Your task to perform on an android device: Show me recent news Image 0: 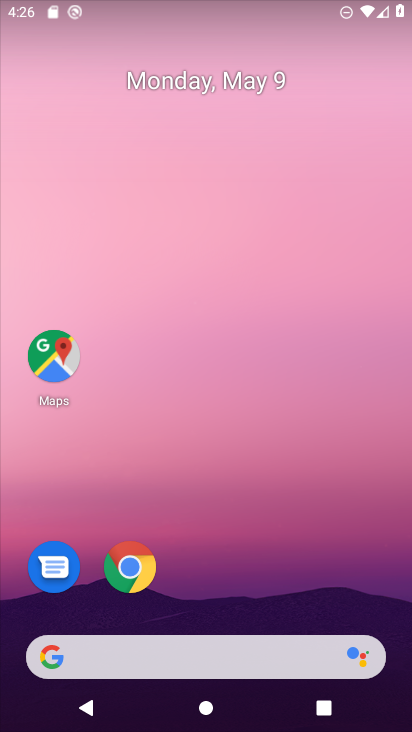
Step 0: click (195, 652)
Your task to perform on an android device: Show me recent news Image 1: 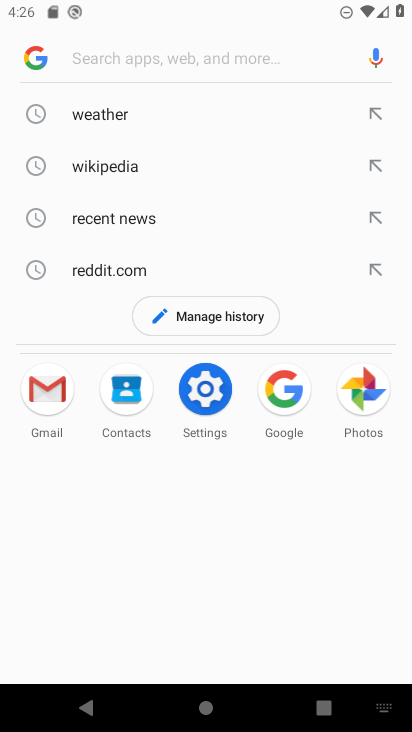
Step 1: click (140, 212)
Your task to perform on an android device: Show me recent news Image 2: 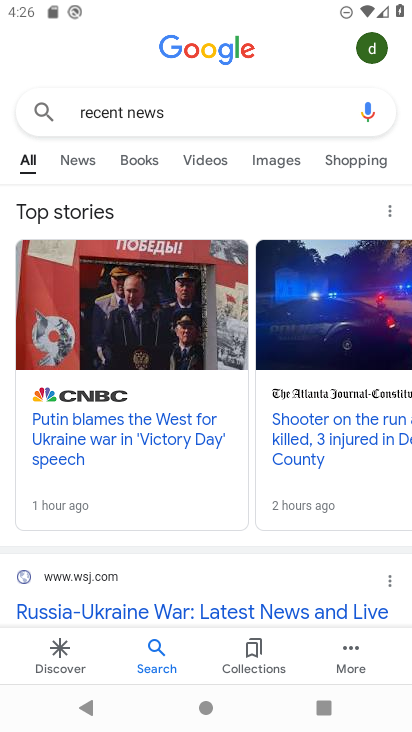
Step 2: click (70, 159)
Your task to perform on an android device: Show me recent news Image 3: 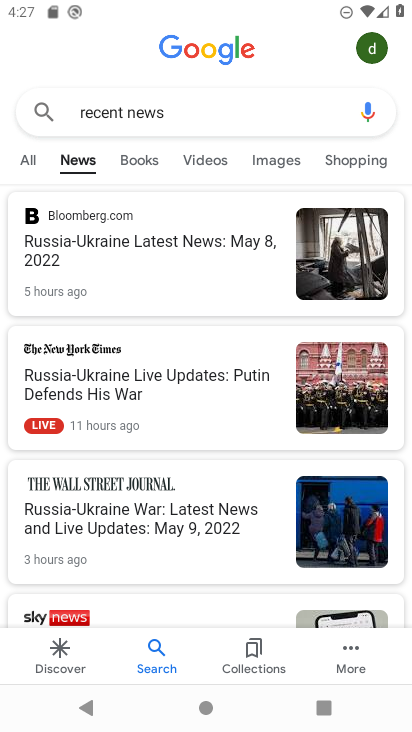
Step 3: task complete